Your task to perform on an android device: check out phone information Image 0: 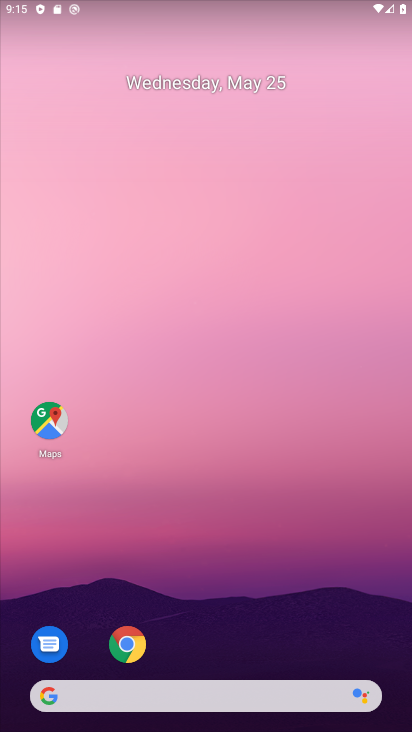
Step 0: drag from (283, 678) to (281, 1)
Your task to perform on an android device: check out phone information Image 1: 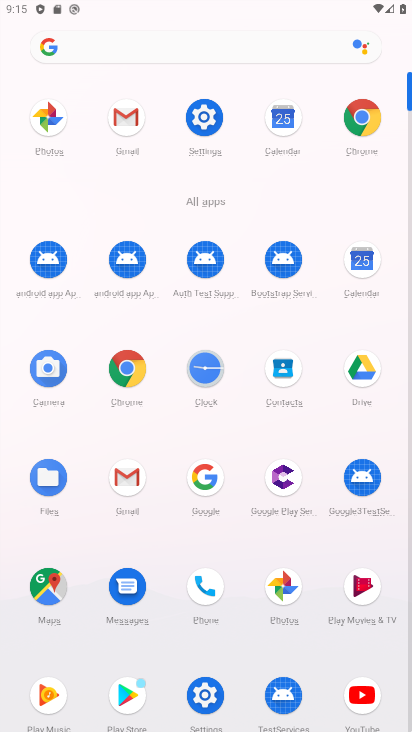
Step 1: click (206, 124)
Your task to perform on an android device: check out phone information Image 2: 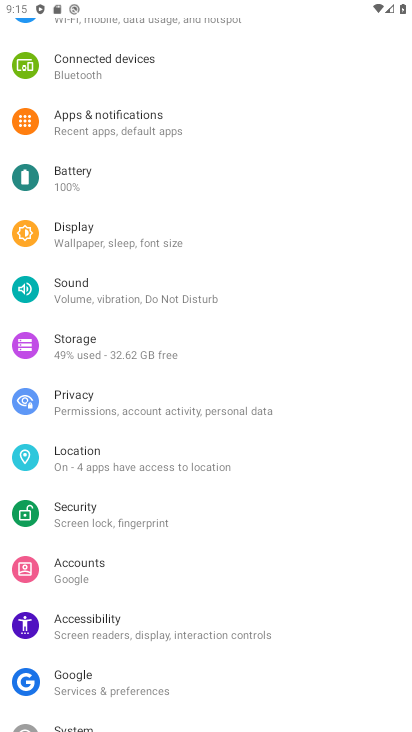
Step 2: drag from (259, 642) to (236, 134)
Your task to perform on an android device: check out phone information Image 3: 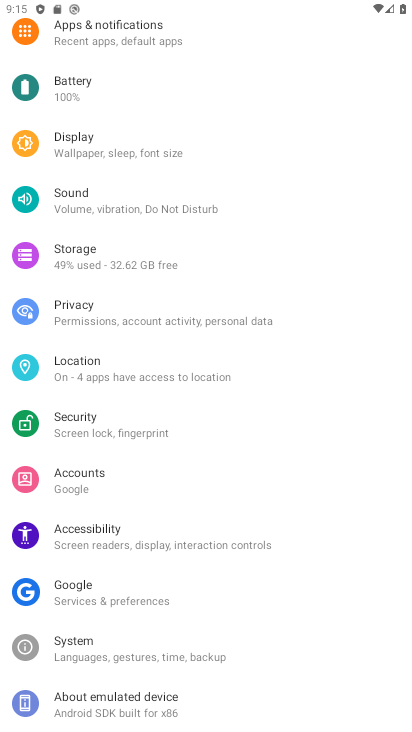
Step 3: click (118, 695)
Your task to perform on an android device: check out phone information Image 4: 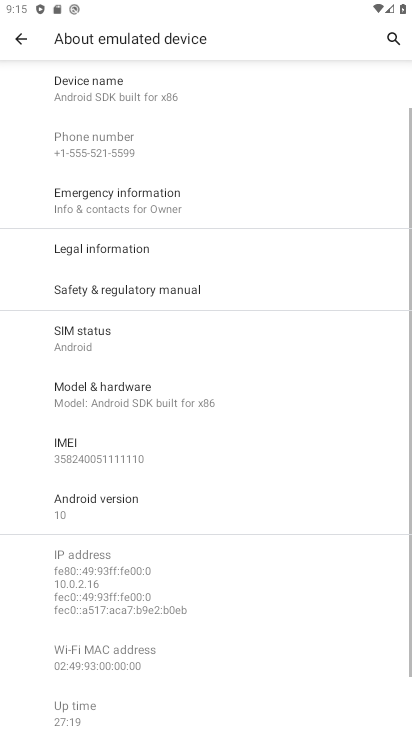
Step 4: task complete